Your task to perform on an android device: What's the weather today? Image 0: 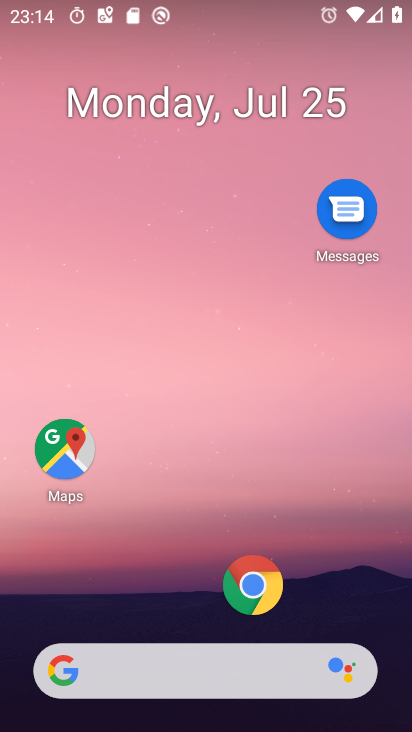
Step 0: press home button
Your task to perform on an android device: What's the weather today? Image 1: 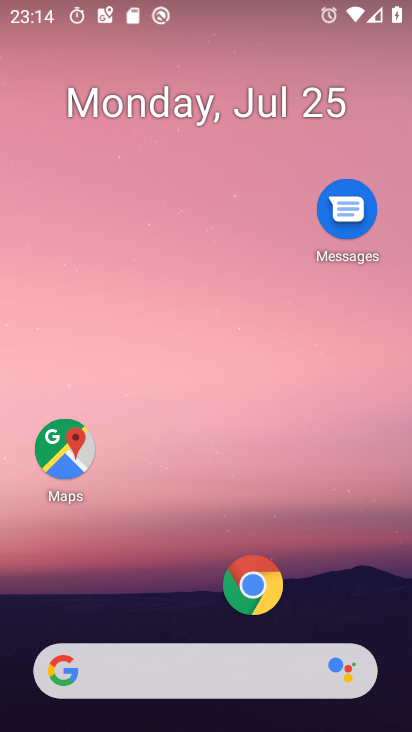
Step 1: click (134, 666)
Your task to perform on an android device: What's the weather today? Image 2: 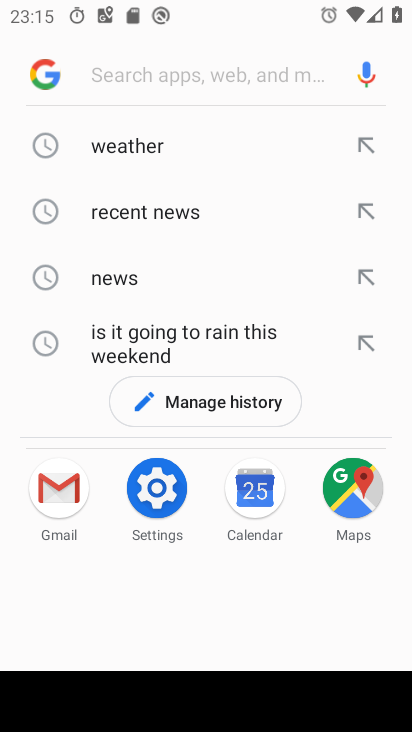
Step 2: click (145, 146)
Your task to perform on an android device: What's the weather today? Image 3: 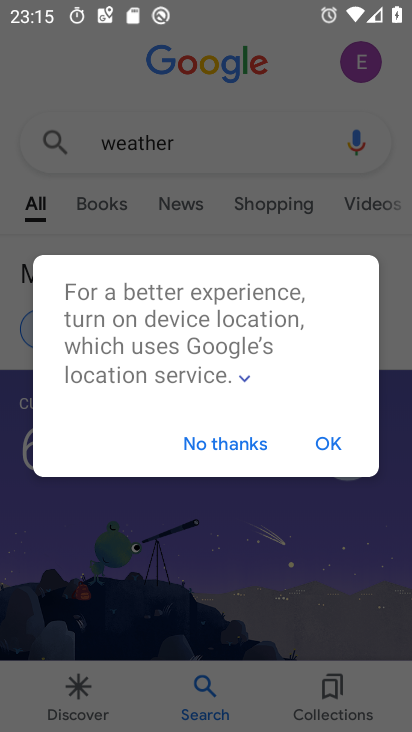
Step 3: click (337, 450)
Your task to perform on an android device: What's the weather today? Image 4: 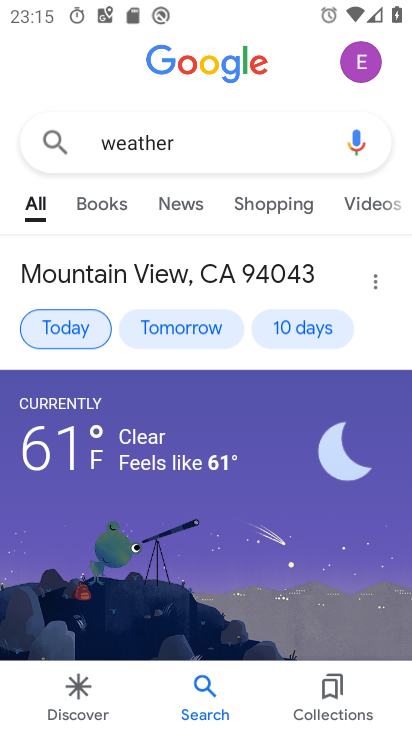
Step 4: task complete